Your task to perform on an android device: delete location history Image 0: 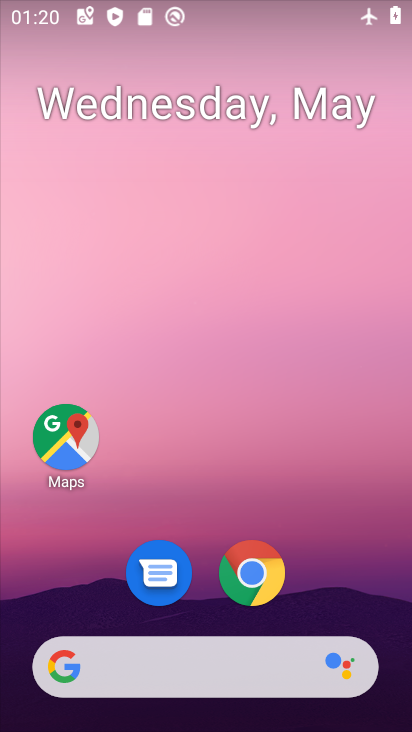
Step 0: drag from (333, 539) to (279, 125)
Your task to perform on an android device: delete location history Image 1: 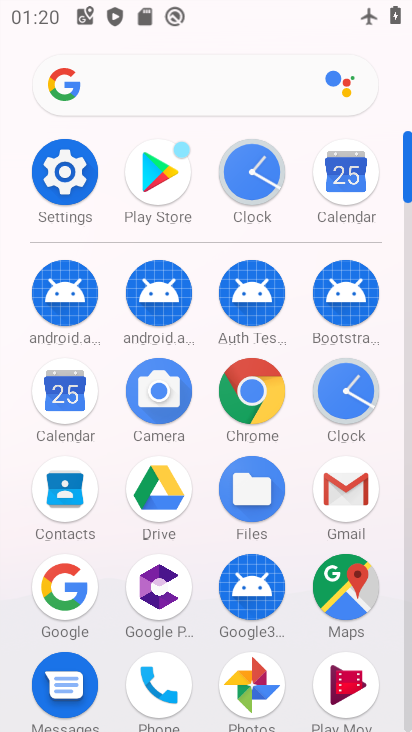
Step 1: click (338, 581)
Your task to perform on an android device: delete location history Image 2: 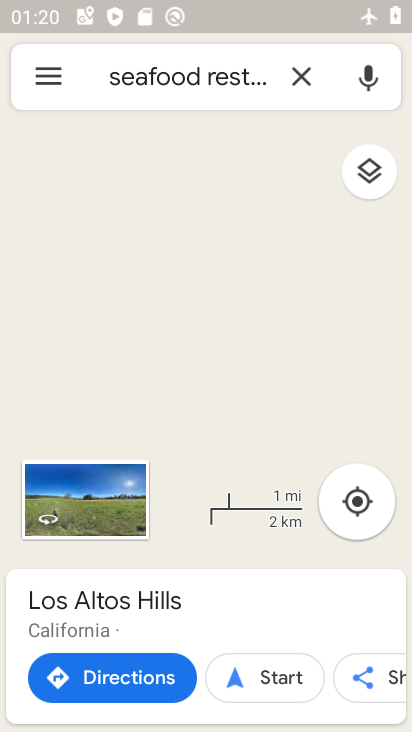
Step 2: click (35, 73)
Your task to perform on an android device: delete location history Image 3: 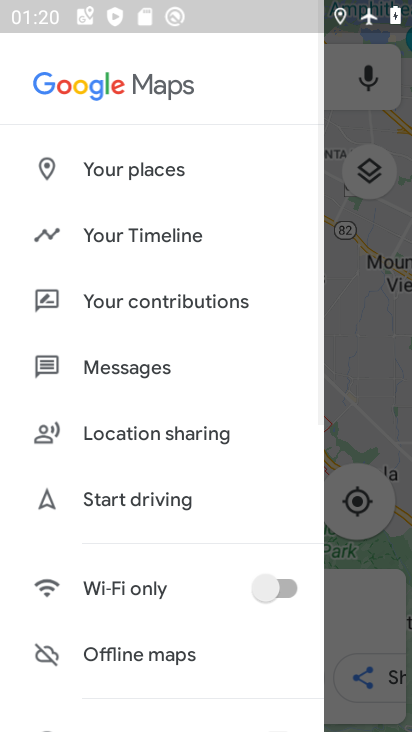
Step 3: click (153, 233)
Your task to perform on an android device: delete location history Image 4: 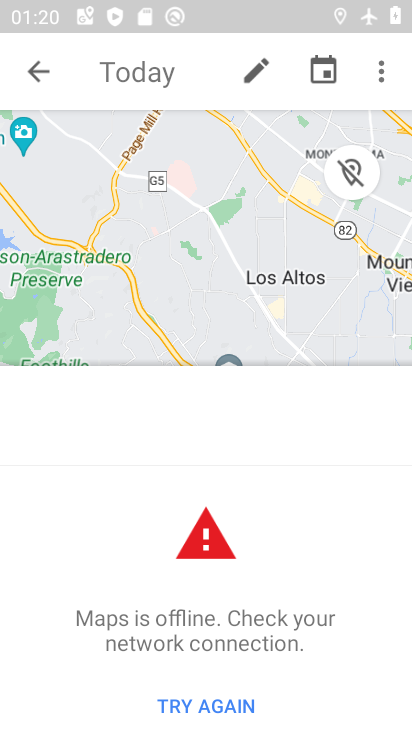
Step 4: click (389, 64)
Your task to perform on an android device: delete location history Image 5: 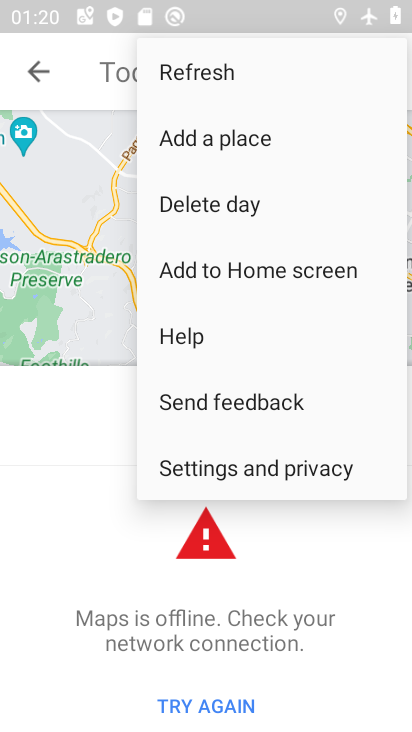
Step 5: click (302, 461)
Your task to perform on an android device: delete location history Image 6: 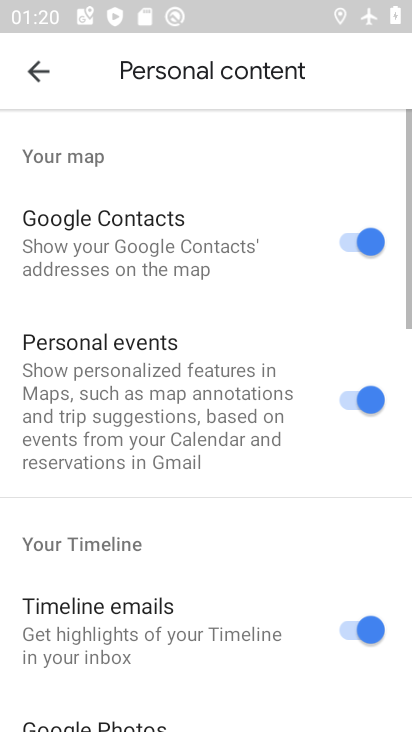
Step 6: drag from (197, 546) to (215, 148)
Your task to perform on an android device: delete location history Image 7: 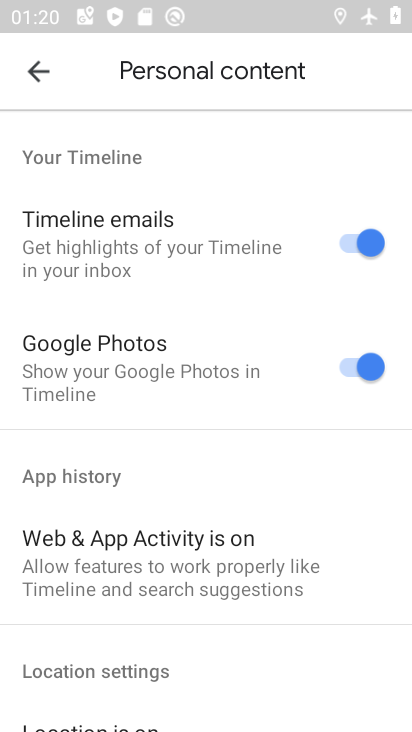
Step 7: drag from (181, 600) to (201, 134)
Your task to perform on an android device: delete location history Image 8: 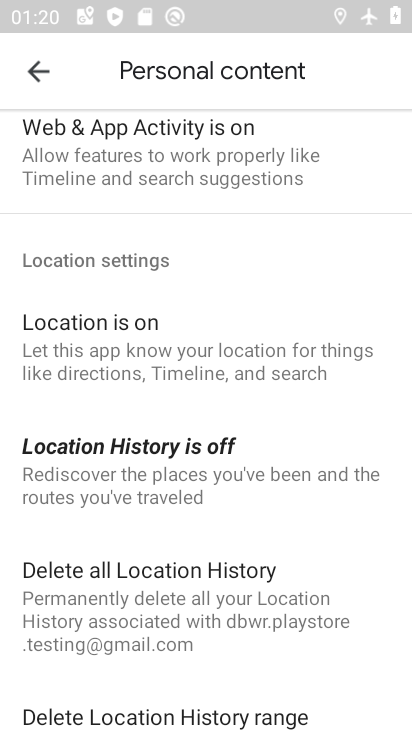
Step 8: click (168, 458)
Your task to perform on an android device: delete location history Image 9: 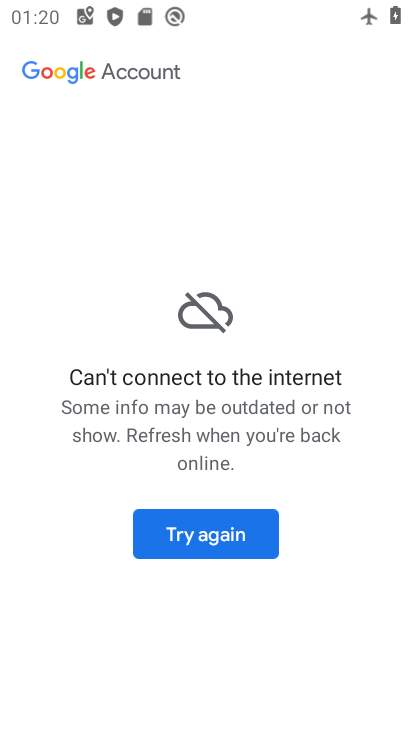
Step 9: press back button
Your task to perform on an android device: delete location history Image 10: 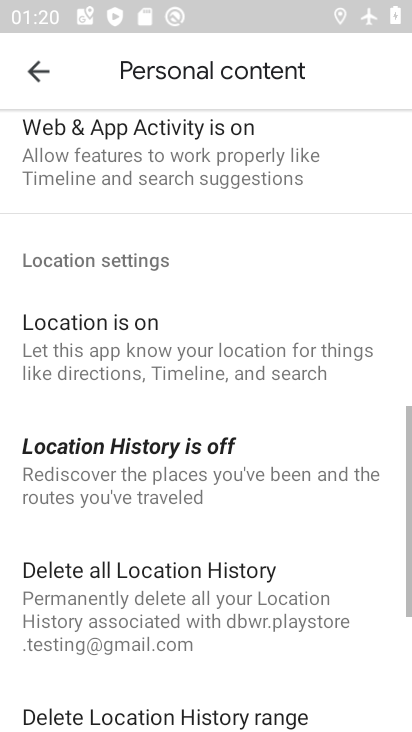
Step 10: click (269, 574)
Your task to perform on an android device: delete location history Image 11: 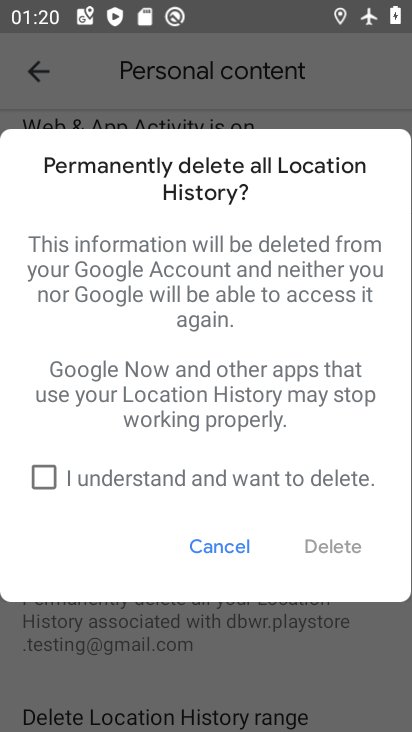
Step 11: click (129, 469)
Your task to perform on an android device: delete location history Image 12: 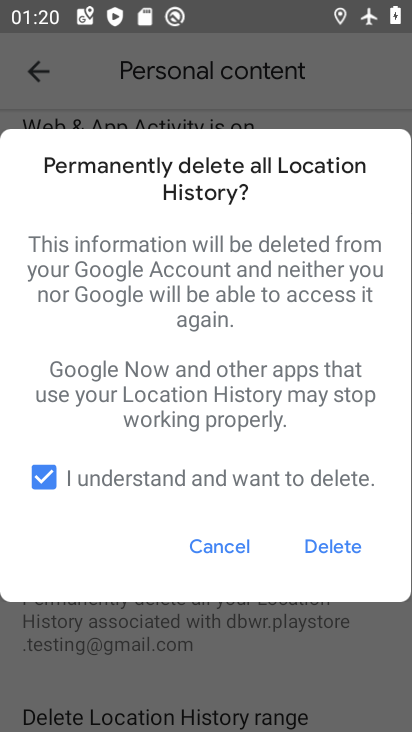
Step 12: click (330, 543)
Your task to perform on an android device: delete location history Image 13: 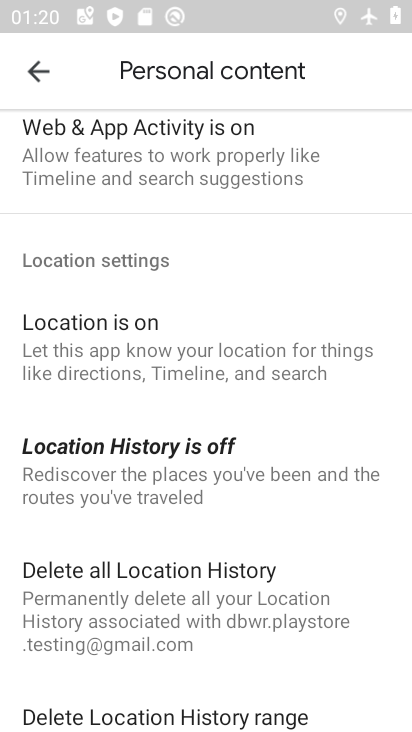
Step 13: task complete